Your task to perform on an android device: Open location settings Image 0: 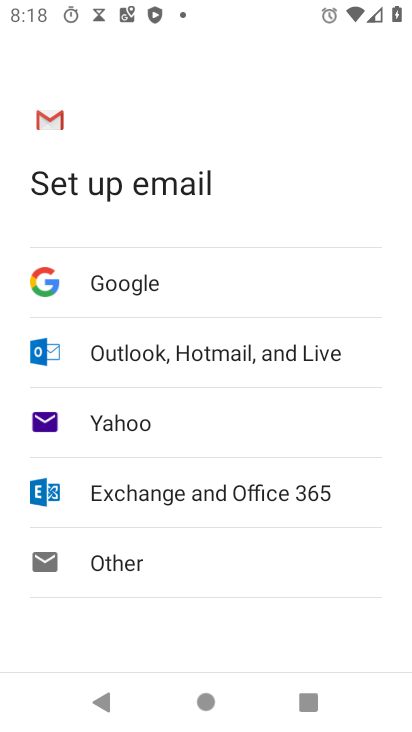
Step 0: press home button
Your task to perform on an android device: Open location settings Image 1: 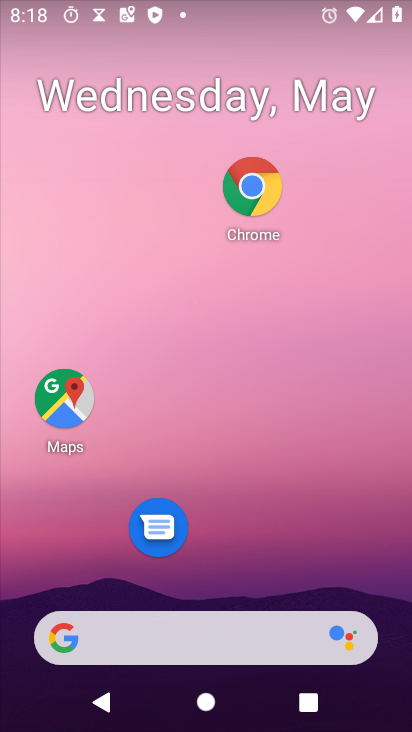
Step 1: drag from (294, 457) to (374, 77)
Your task to perform on an android device: Open location settings Image 2: 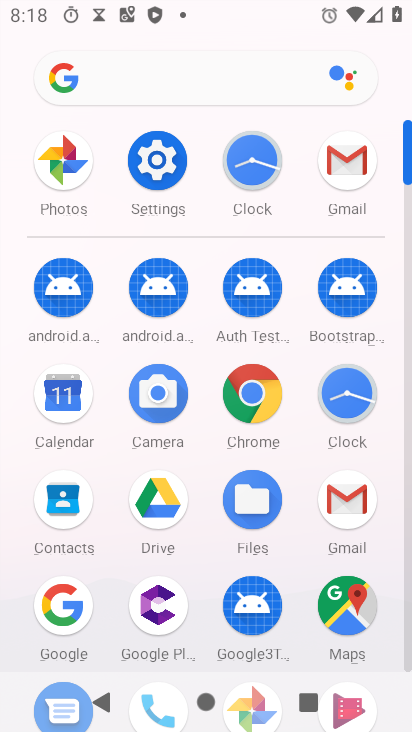
Step 2: click (155, 165)
Your task to perform on an android device: Open location settings Image 3: 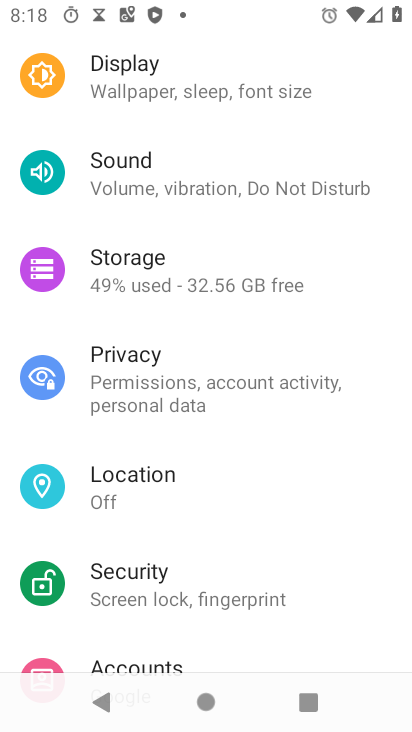
Step 3: click (97, 478)
Your task to perform on an android device: Open location settings Image 4: 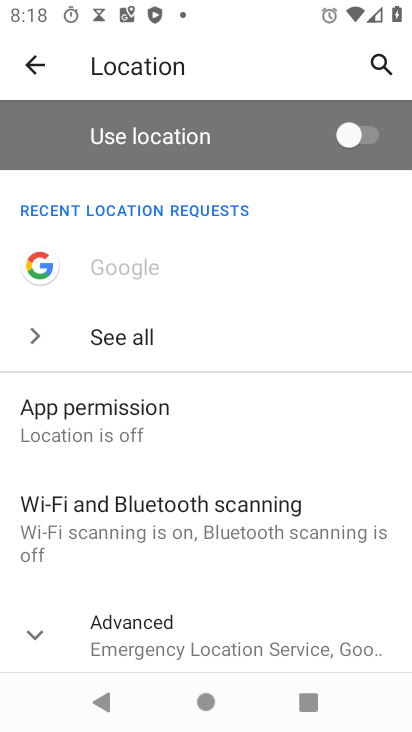
Step 4: task complete